Your task to perform on an android device: all mails in gmail Image 0: 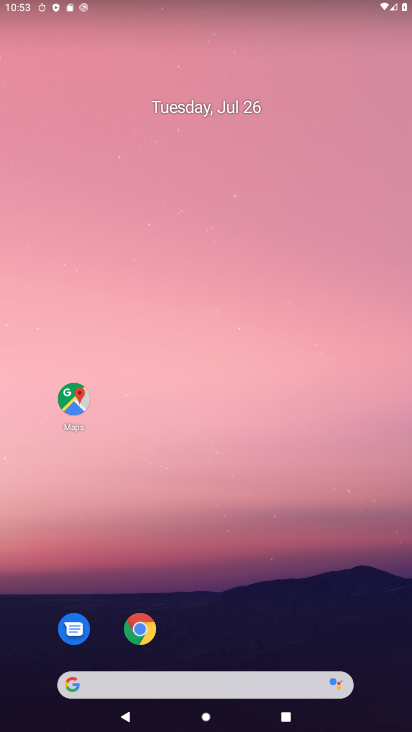
Step 0: drag from (384, 623) to (263, 82)
Your task to perform on an android device: all mails in gmail Image 1: 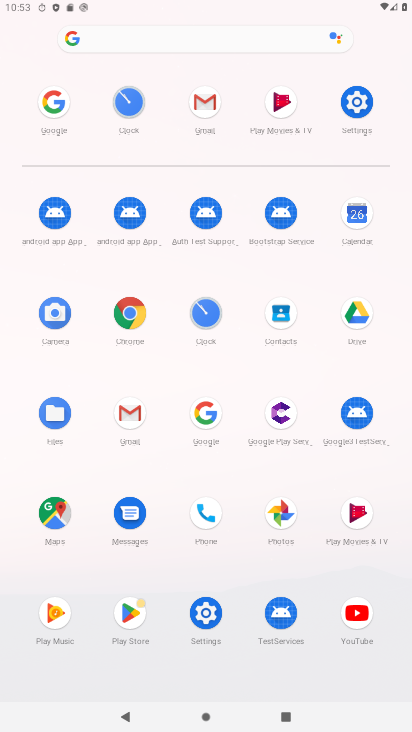
Step 1: click (126, 413)
Your task to perform on an android device: all mails in gmail Image 2: 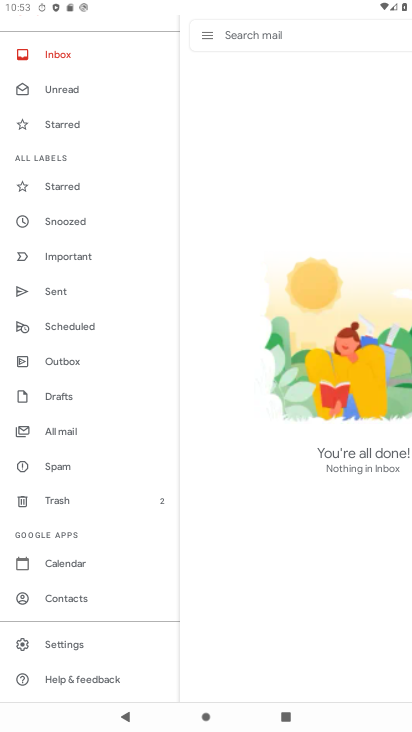
Step 2: click (80, 435)
Your task to perform on an android device: all mails in gmail Image 3: 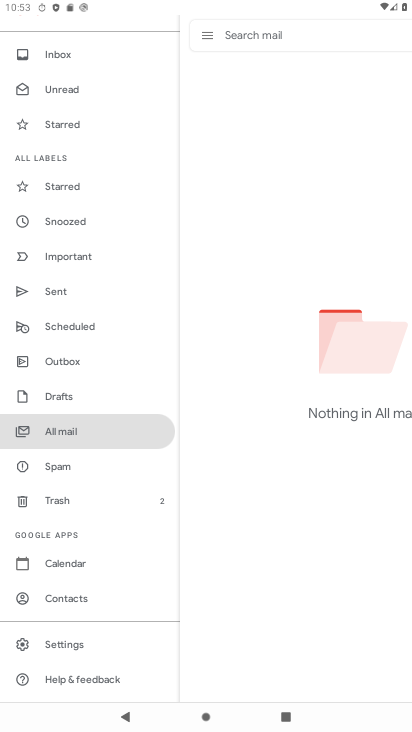
Step 3: task complete